Your task to perform on an android device: set the stopwatch Image 0: 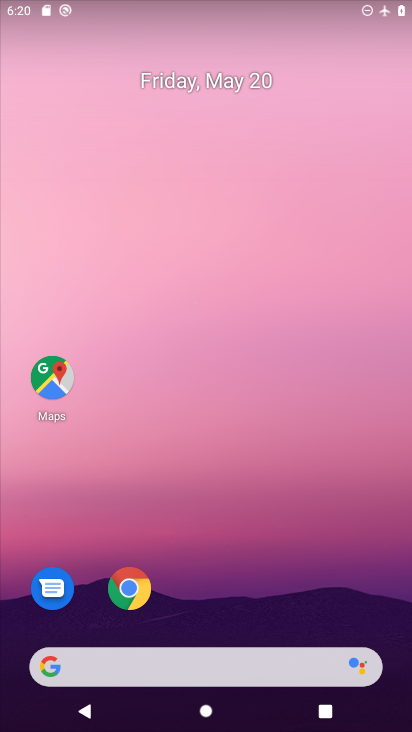
Step 0: drag from (203, 607) to (262, 186)
Your task to perform on an android device: set the stopwatch Image 1: 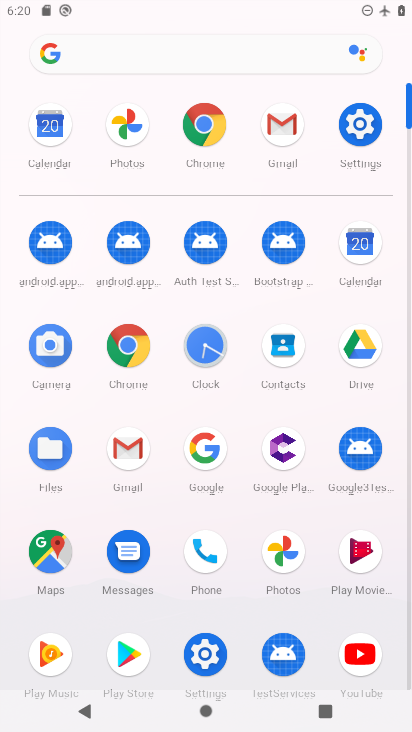
Step 1: click (205, 357)
Your task to perform on an android device: set the stopwatch Image 2: 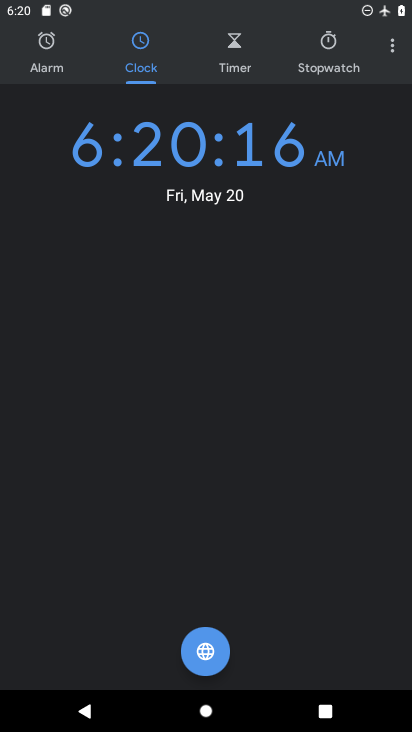
Step 2: click (327, 57)
Your task to perform on an android device: set the stopwatch Image 3: 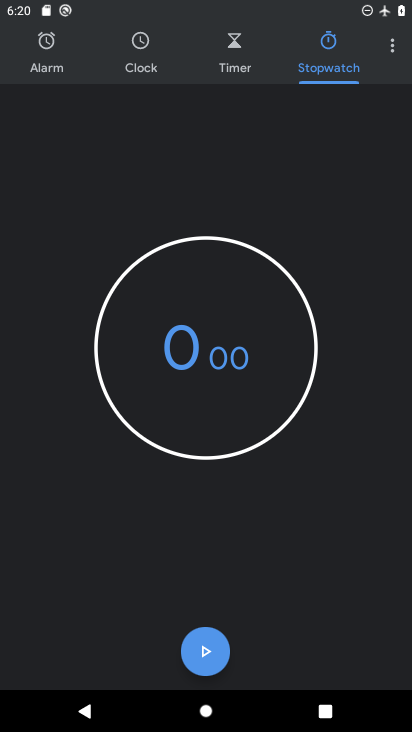
Step 3: click (197, 649)
Your task to perform on an android device: set the stopwatch Image 4: 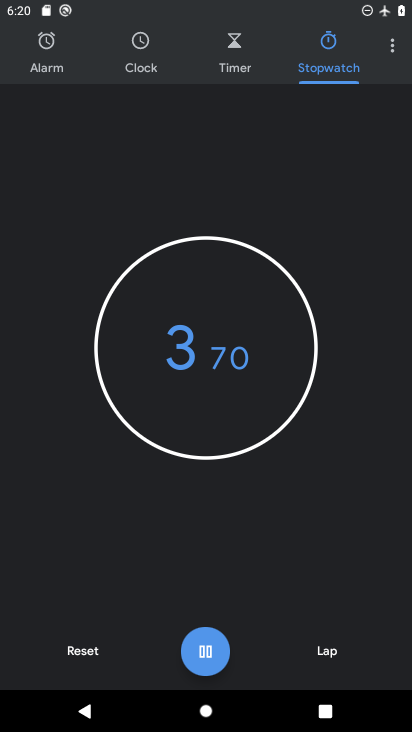
Step 4: click (210, 656)
Your task to perform on an android device: set the stopwatch Image 5: 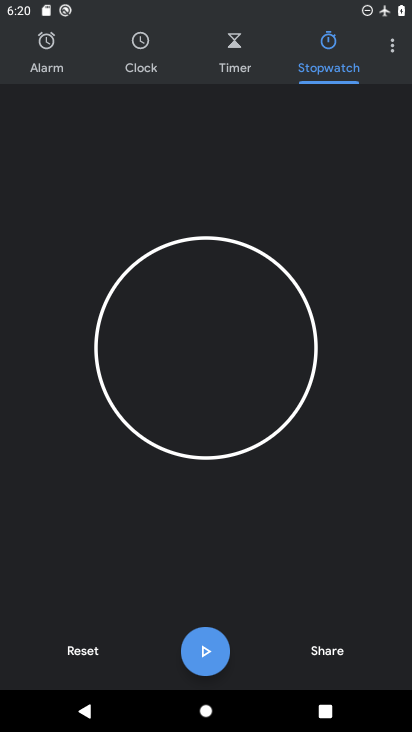
Step 5: task complete